Your task to perform on an android device: open a bookmark in the chrome app Image 0: 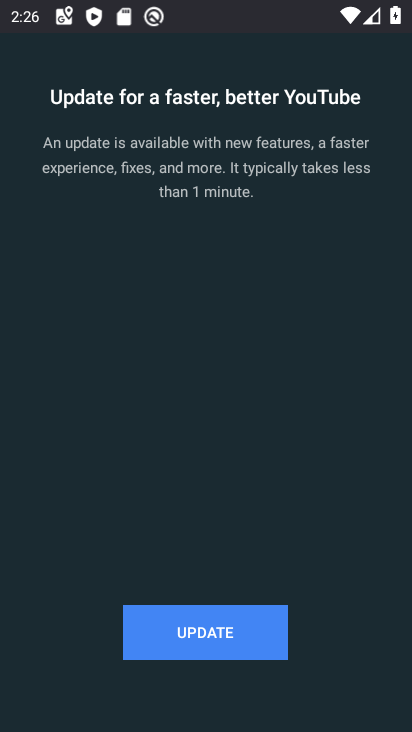
Step 0: press back button
Your task to perform on an android device: open a bookmark in the chrome app Image 1: 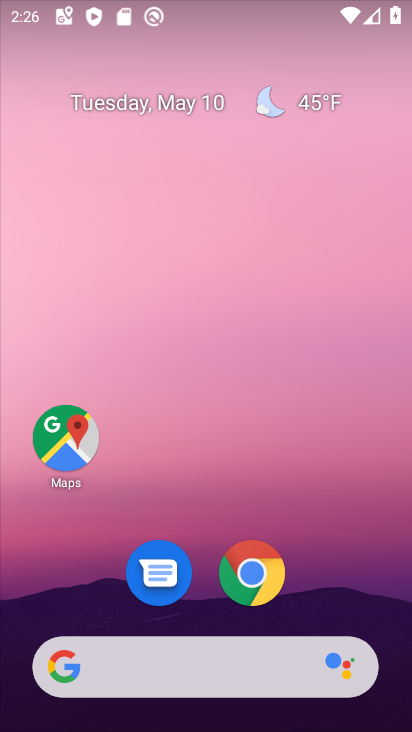
Step 1: click (233, 571)
Your task to perform on an android device: open a bookmark in the chrome app Image 2: 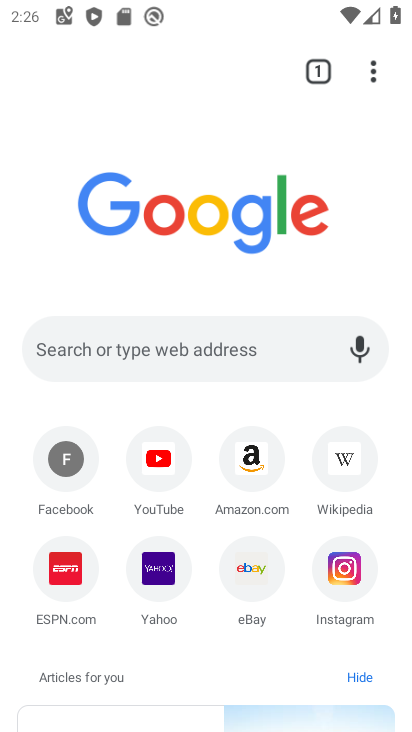
Step 2: task complete